Your task to perform on an android device: Go to accessibility settings Image 0: 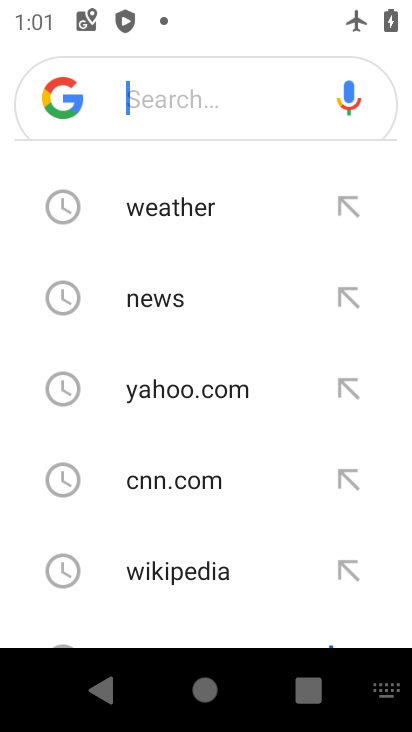
Step 0: press back button
Your task to perform on an android device: Go to accessibility settings Image 1: 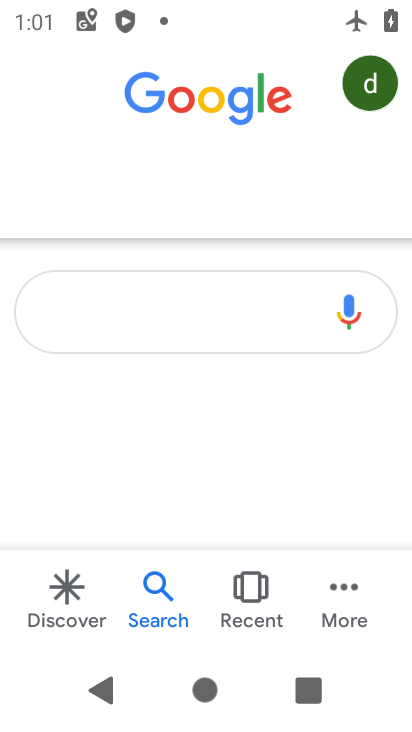
Step 1: press back button
Your task to perform on an android device: Go to accessibility settings Image 2: 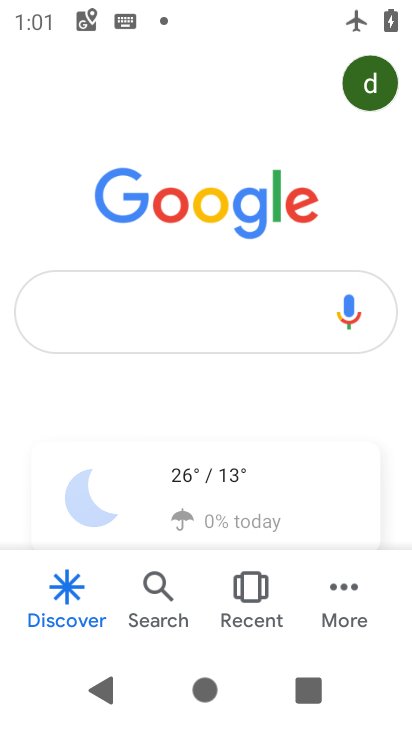
Step 2: press back button
Your task to perform on an android device: Go to accessibility settings Image 3: 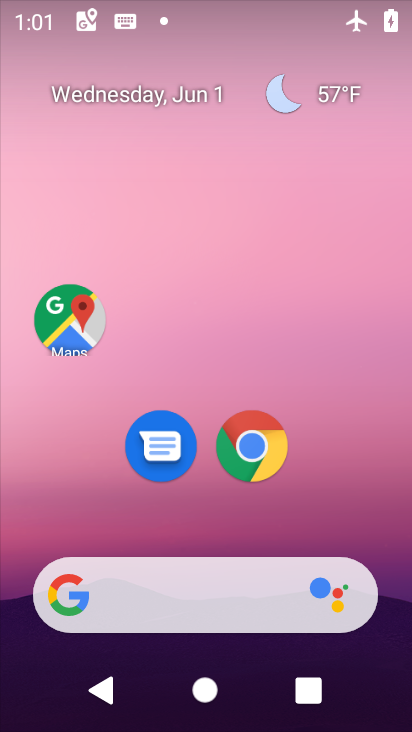
Step 3: drag from (284, 525) to (217, 126)
Your task to perform on an android device: Go to accessibility settings Image 4: 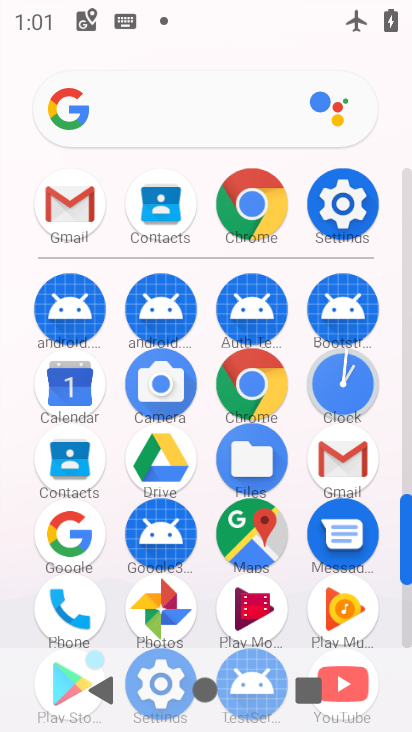
Step 4: drag from (197, 265) to (190, 138)
Your task to perform on an android device: Go to accessibility settings Image 5: 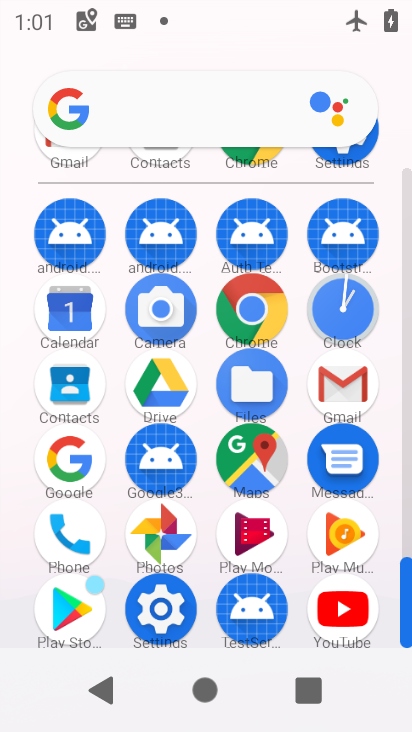
Step 5: click (158, 614)
Your task to perform on an android device: Go to accessibility settings Image 6: 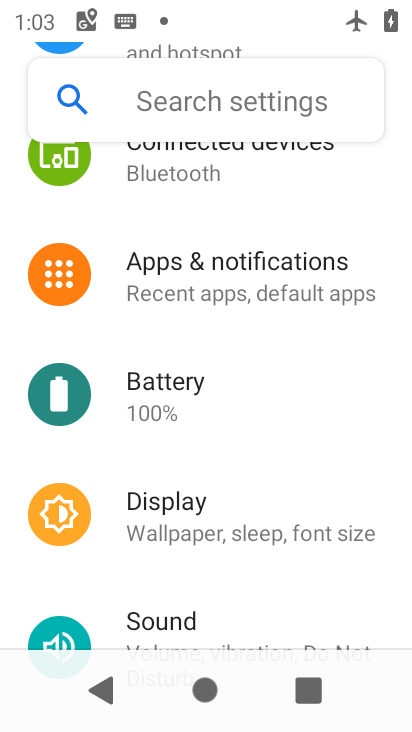
Step 6: drag from (256, 494) to (231, 172)
Your task to perform on an android device: Go to accessibility settings Image 7: 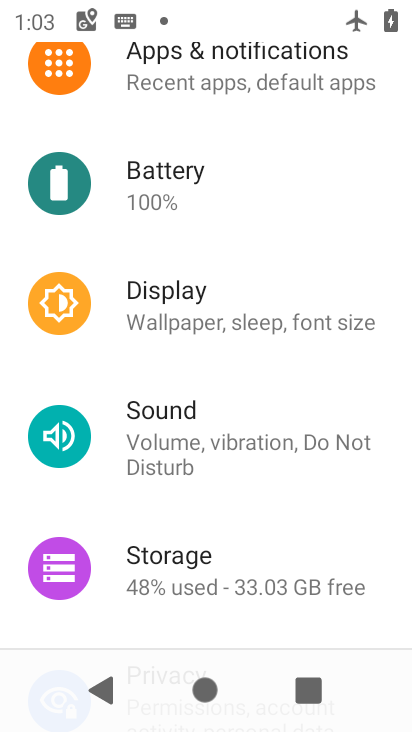
Step 7: drag from (231, 519) to (219, 5)
Your task to perform on an android device: Go to accessibility settings Image 8: 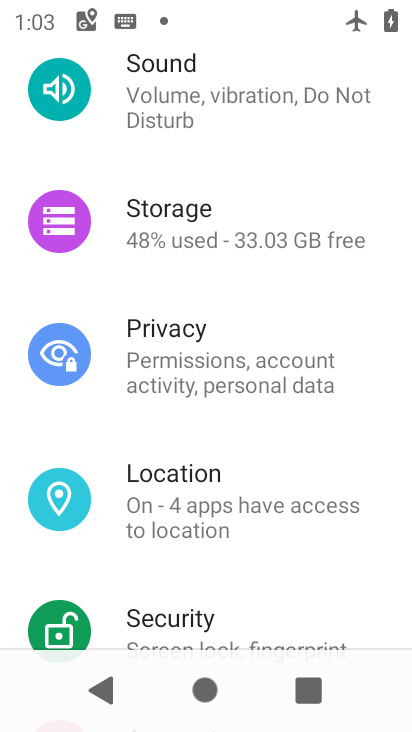
Step 8: drag from (199, 535) to (215, 25)
Your task to perform on an android device: Go to accessibility settings Image 9: 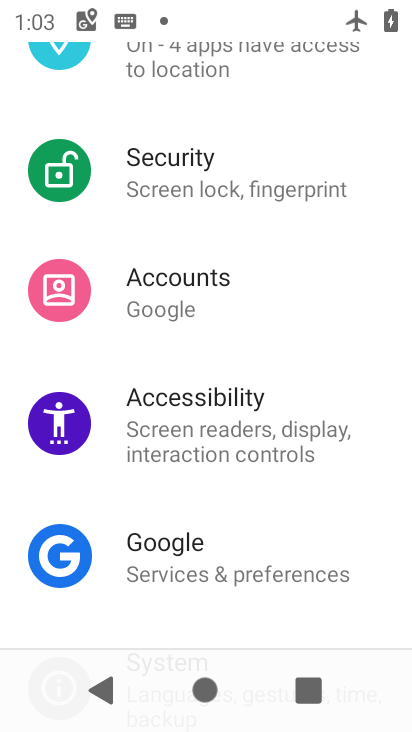
Step 9: click (225, 456)
Your task to perform on an android device: Go to accessibility settings Image 10: 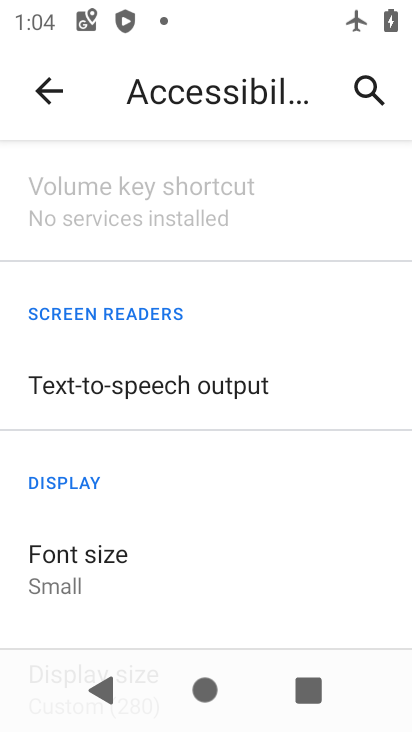
Step 10: task complete